Your task to perform on an android device: Open Youtube and go to "Your channel" Image 0: 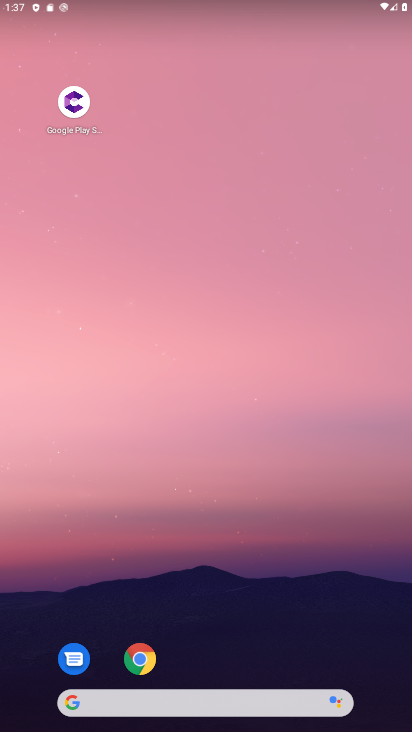
Step 0: drag from (210, 646) to (242, 101)
Your task to perform on an android device: Open Youtube and go to "Your channel" Image 1: 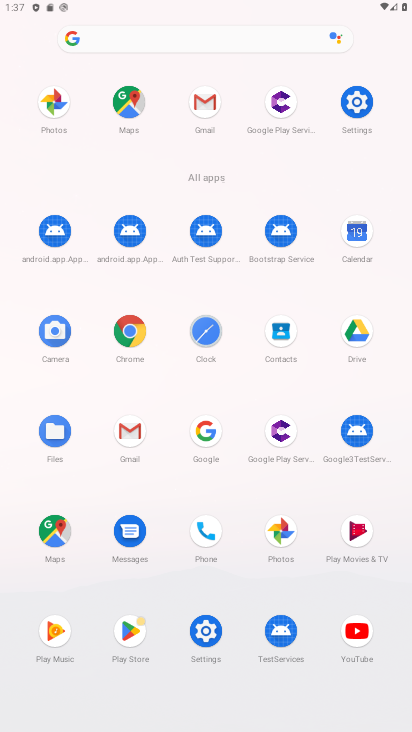
Step 1: click (352, 626)
Your task to perform on an android device: Open Youtube and go to "Your channel" Image 2: 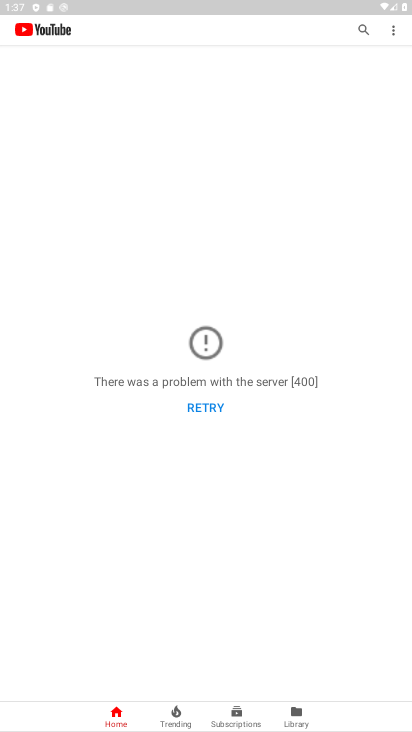
Step 2: task complete